Your task to perform on an android device: Go to sound settings Image 0: 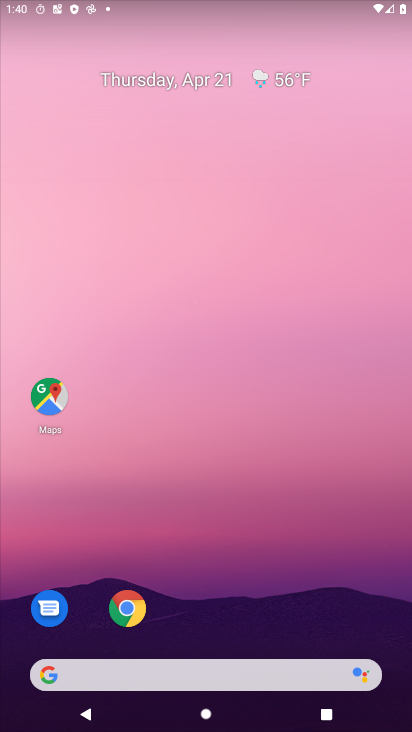
Step 0: drag from (270, 610) to (293, 163)
Your task to perform on an android device: Go to sound settings Image 1: 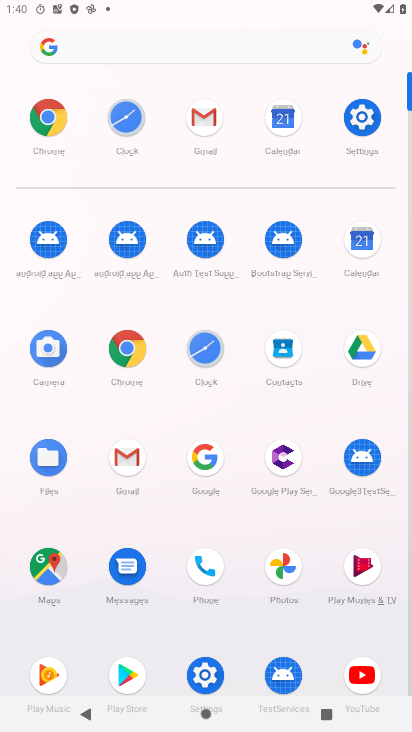
Step 1: click (374, 115)
Your task to perform on an android device: Go to sound settings Image 2: 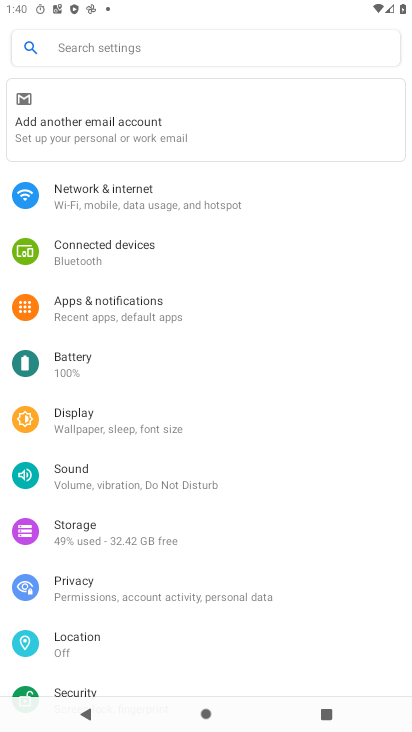
Step 2: click (114, 482)
Your task to perform on an android device: Go to sound settings Image 3: 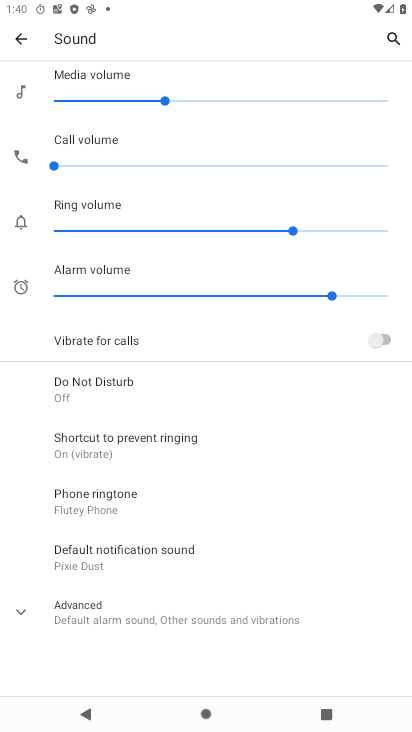
Step 3: task complete